Your task to perform on an android device: turn off location Image 0: 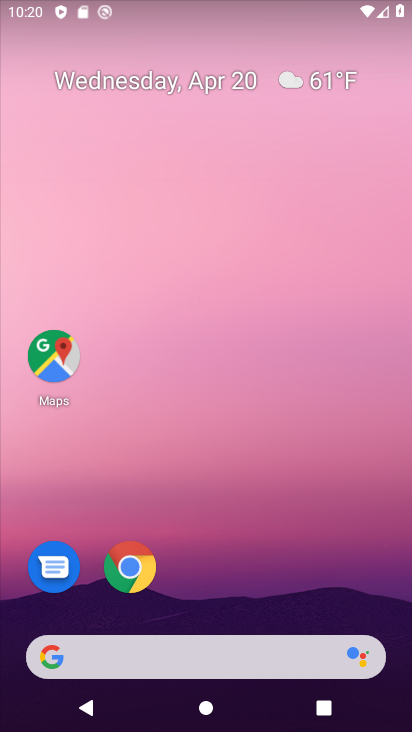
Step 0: drag from (226, 527) to (307, 61)
Your task to perform on an android device: turn off location Image 1: 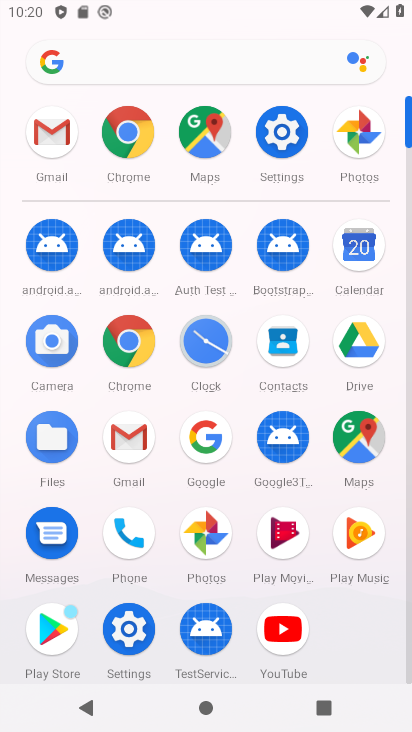
Step 1: click (280, 134)
Your task to perform on an android device: turn off location Image 2: 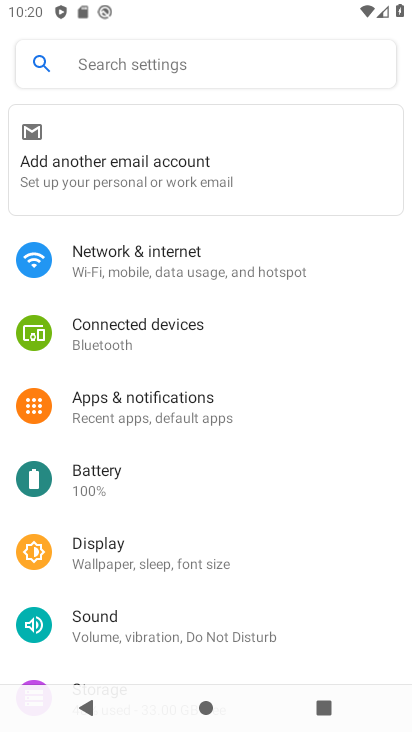
Step 2: drag from (148, 604) to (239, 229)
Your task to perform on an android device: turn off location Image 3: 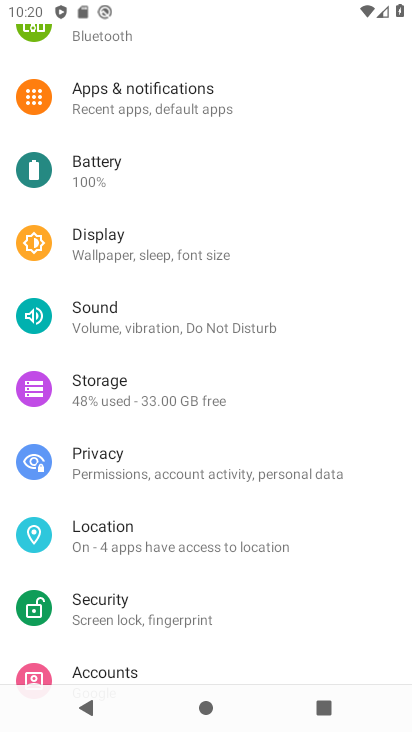
Step 3: click (145, 552)
Your task to perform on an android device: turn off location Image 4: 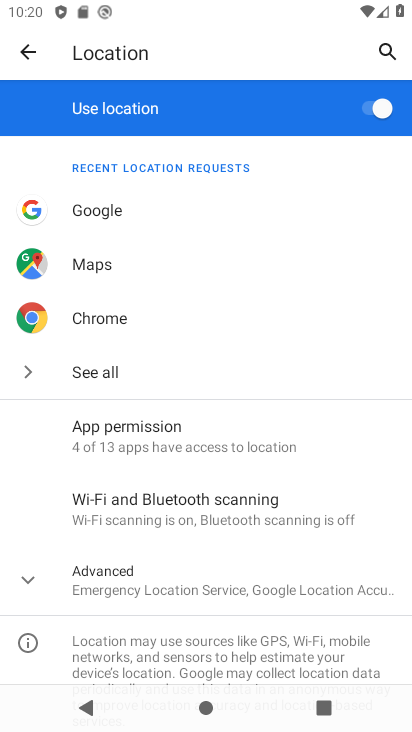
Step 4: click (381, 108)
Your task to perform on an android device: turn off location Image 5: 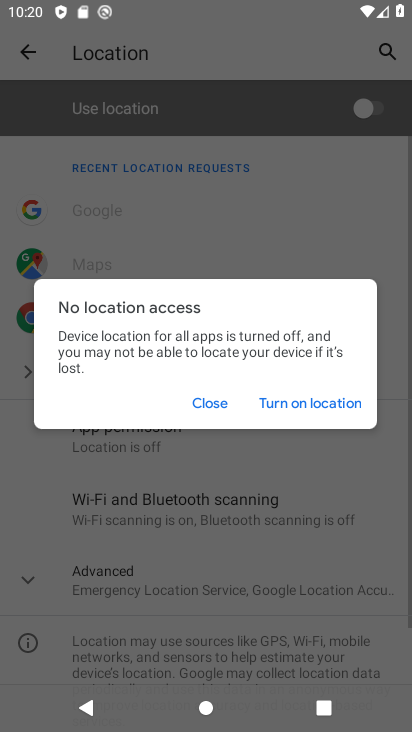
Step 5: task complete